Your task to perform on an android device: Open Chrome and go to settings Image 0: 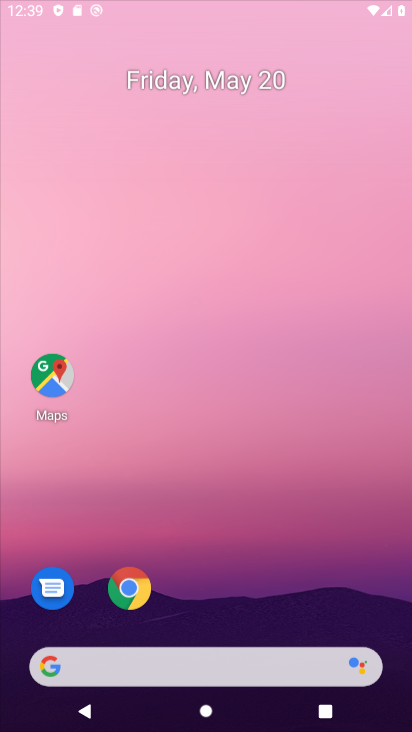
Step 0: drag from (171, 624) to (188, 49)
Your task to perform on an android device: Open Chrome and go to settings Image 1: 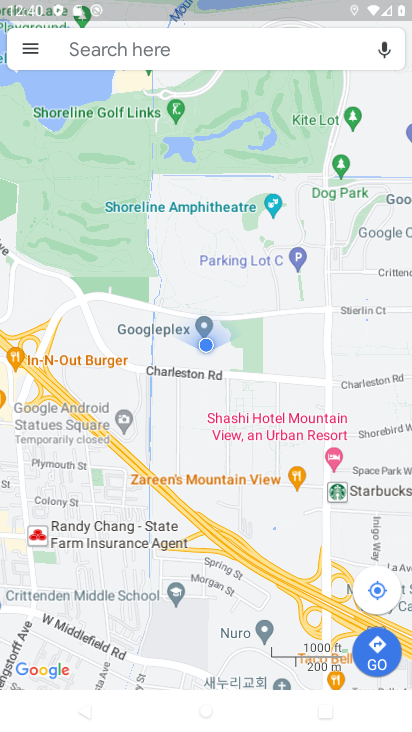
Step 1: press home button
Your task to perform on an android device: Open Chrome and go to settings Image 2: 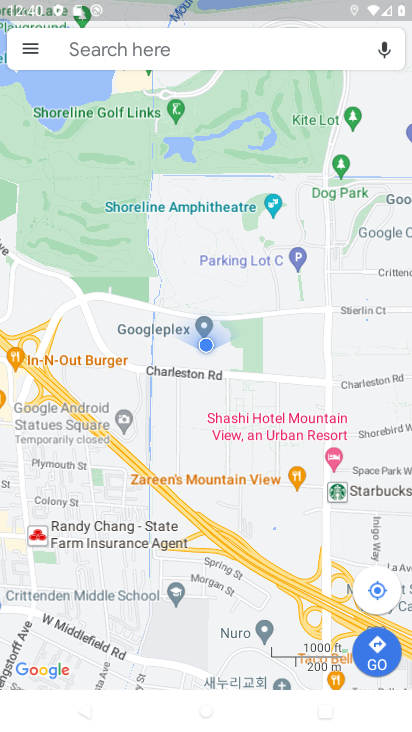
Step 2: drag from (188, 49) to (406, 666)
Your task to perform on an android device: Open Chrome and go to settings Image 3: 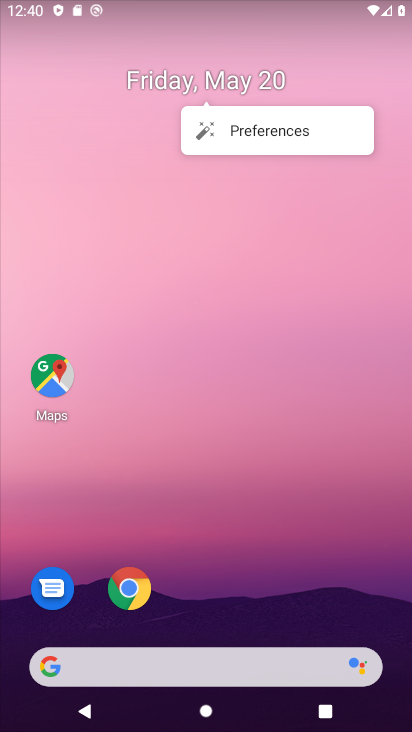
Step 3: click (135, 584)
Your task to perform on an android device: Open Chrome and go to settings Image 4: 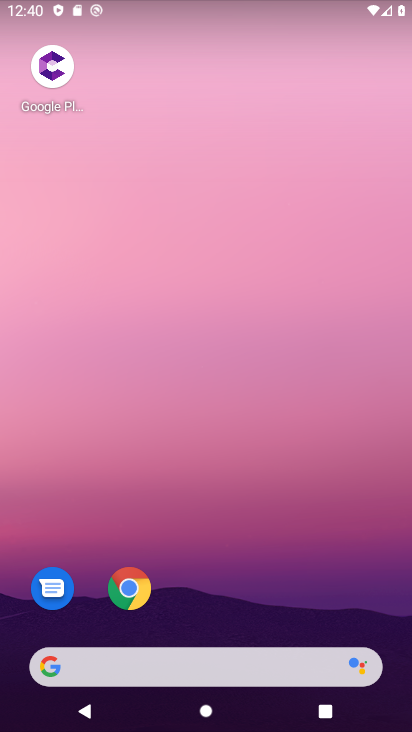
Step 4: click (127, 594)
Your task to perform on an android device: Open Chrome and go to settings Image 5: 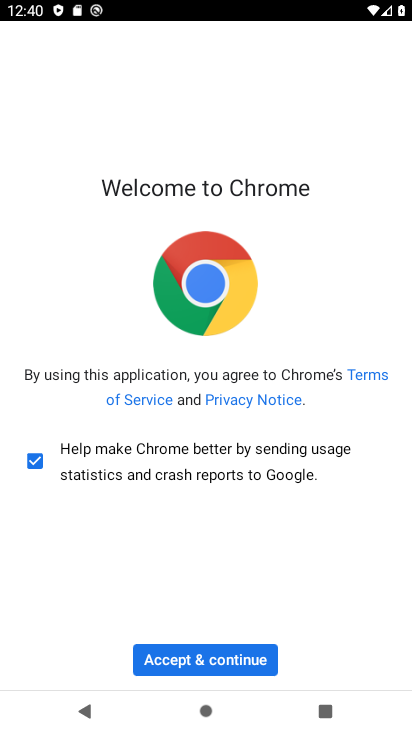
Step 5: click (198, 653)
Your task to perform on an android device: Open Chrome and go to settings Image 6: 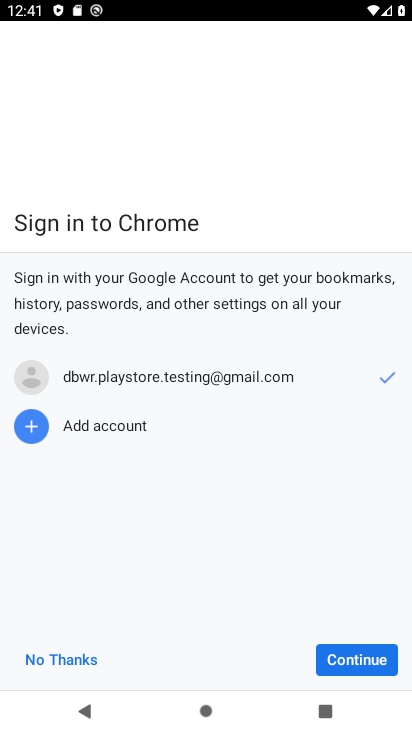
Step 6: click (198, 653)
Your task to perform on an android device: Open Chrome and go to settings Image 7: 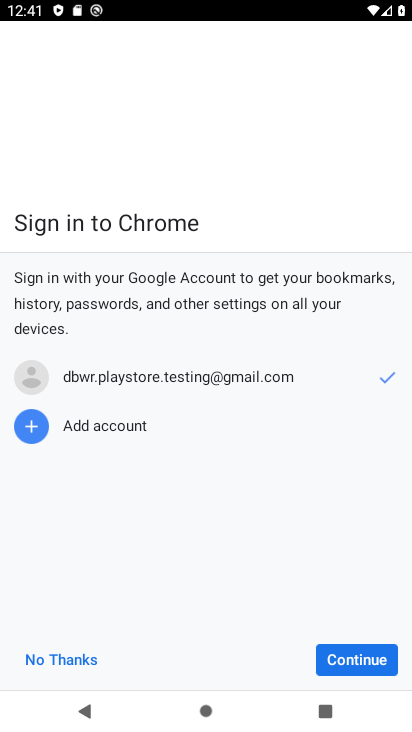
Step 7: click (350, 657)
Your task to perform on an android device: Open Chrome and go to settings Image 8: 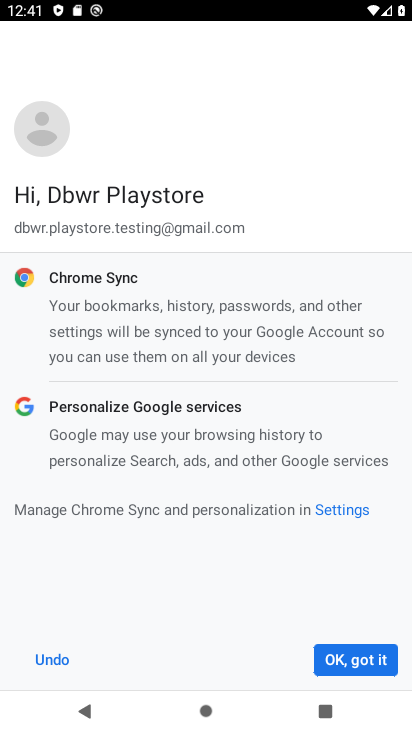
Step 8: click (350, 657)
Your task to perform on an android device: Open Chrome and go to settings Image 9: 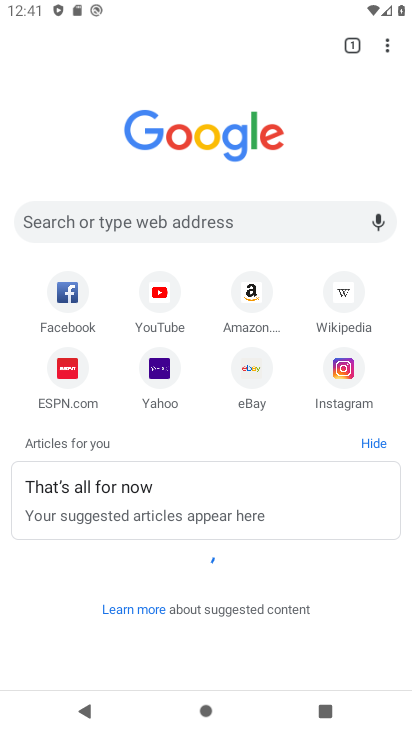
Step 9: click (384, 41)
Your task to perform on an android device: Open Chrome and go to settings Image 10: 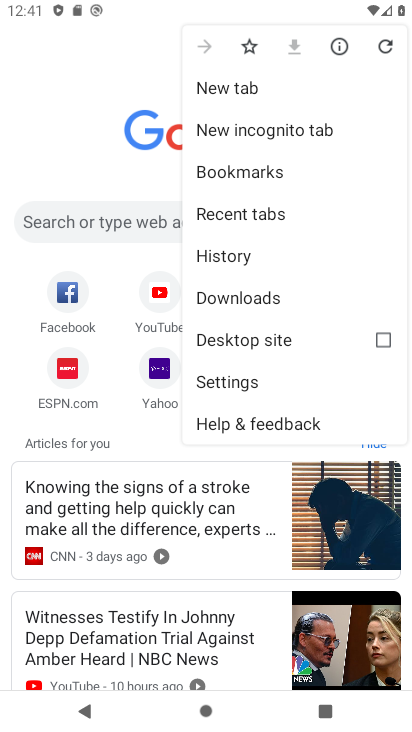
Step 10: click (235, 389)
Your task to perform on an android device: Open Chrome and go to settings Image 11: 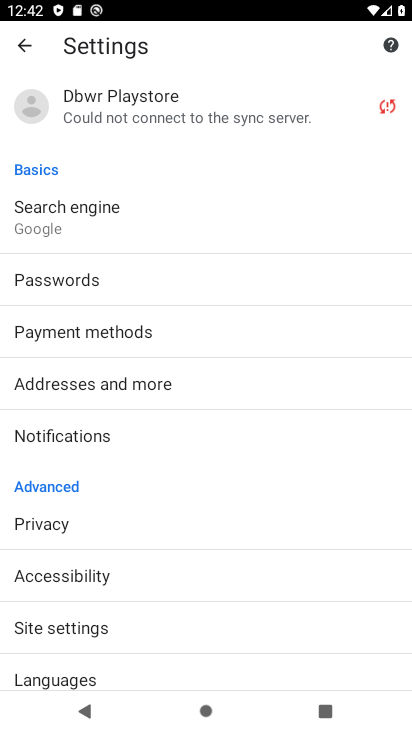
Step 11: task complete